Your task to perform on an android device: Open Wikipedia Image 0: 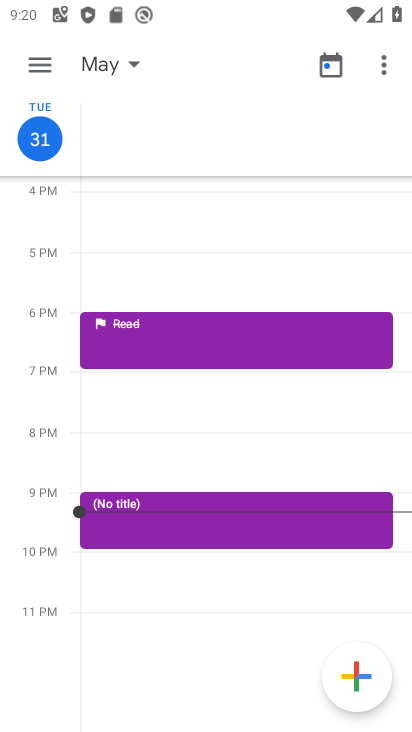
Step 0: press home button
Your task to perform on an android device: Open Wikipedia Image 1: 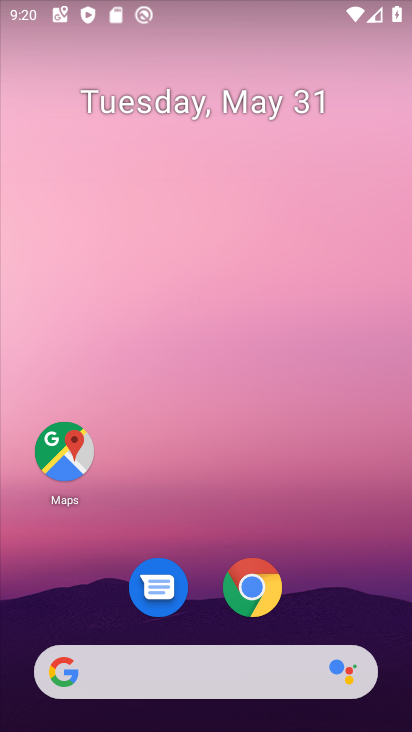
Step 1: drag from (316, 594) to (306, 182)
Your task to perform on an android device: Open Wikipedia Image 2: 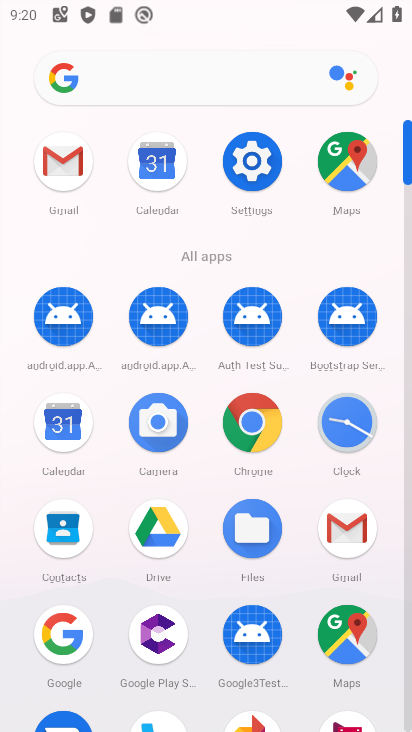
Step 2: click (236, 425)
Your task to perform on an android device: Open Wikipedia Image 3: 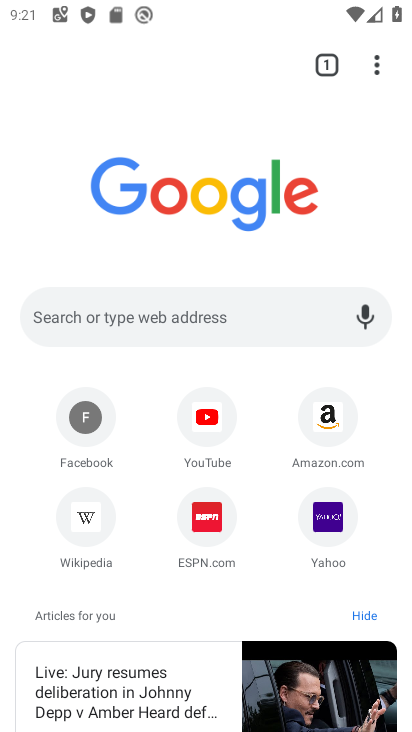
Step 3: click (175, 314)
Your task to perform on an android device: Open Wikipedia Image 4: 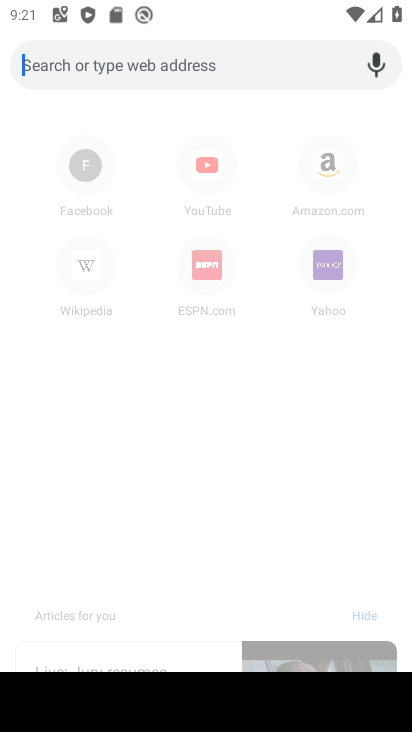
Step 4: type " Wikipedia"
Your task to perform on an android device: Open Wikipedia Image 5: 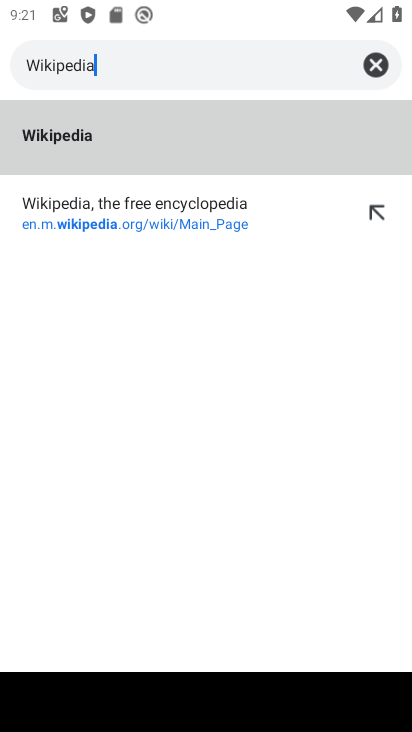
Step 5: click (72, 130)
Your task to perform on an android device: Open Wikipedia Image 6: 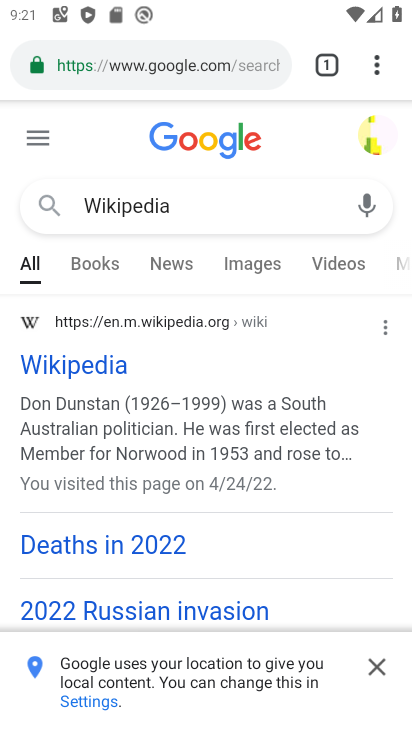
Step 6: click (63, 357)
Your task to perform on an android device: Open Wikipedia Image 7: 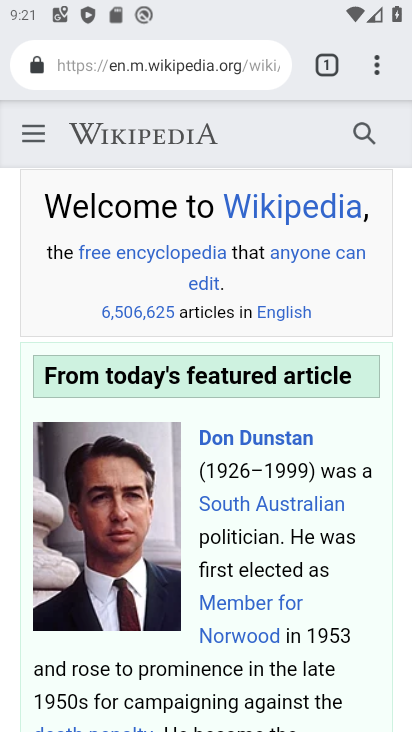
Step 7: task complete